Your task to perform on an android device: change alarm snooze length Image 0: 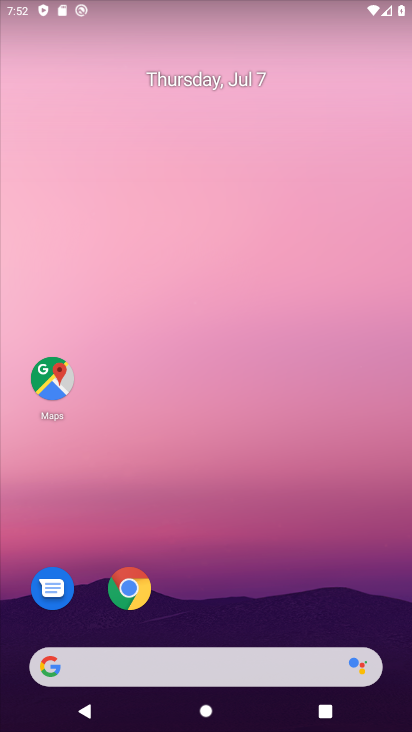
Step 0: drag from (37, 680) to (189, 121)
Your task to perform on an android device: change alarm snooze length Image 1: 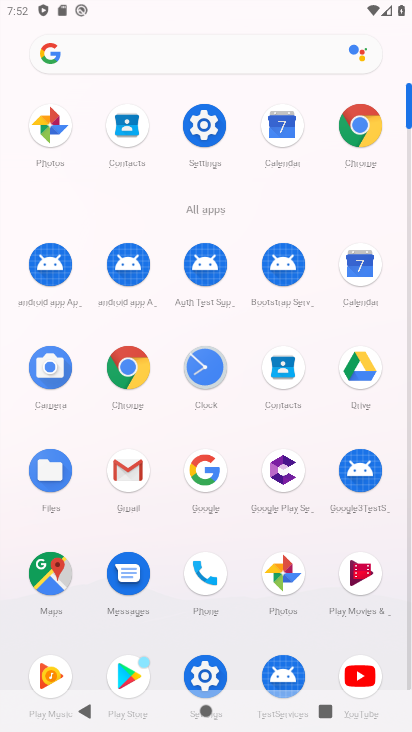
Step 1: click (203, 356)
Your task to perform on an android device: change alarm snooze length Image 2: 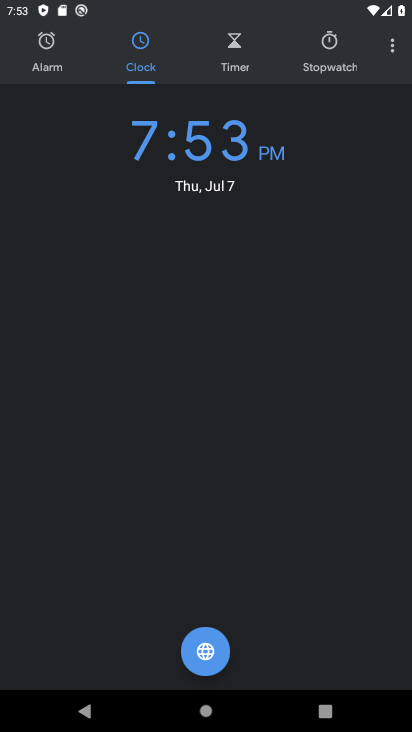
Step 2: click (44, 57)
Your task to perform on an android device: change alarm snooze length Image 3: 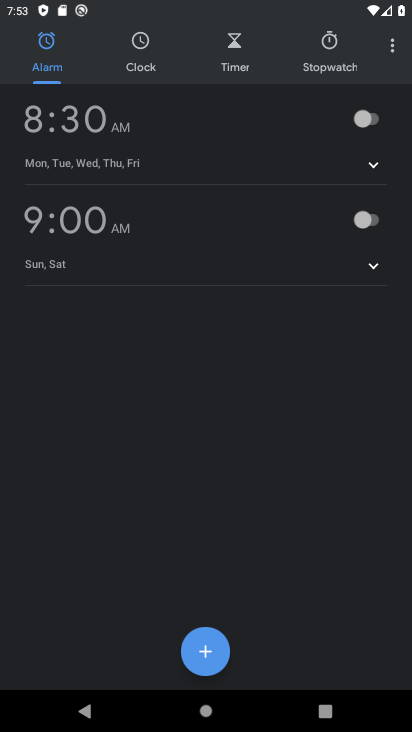
Step 3: click (391, 48)
Your task to perform on an android device: change alarm snooze length Image 4: 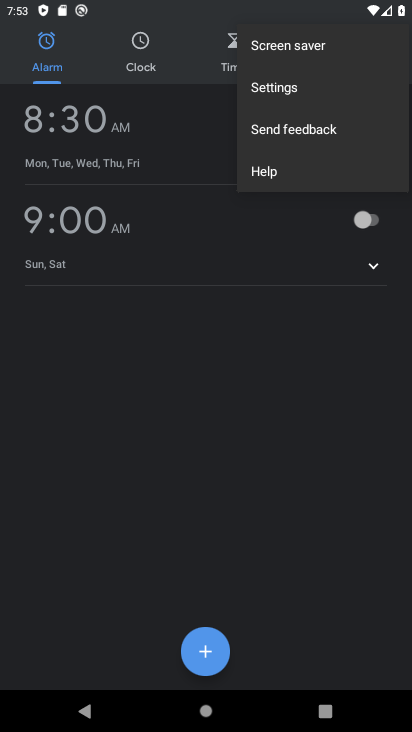
Step 4: click (291, 84)
Your task to perform on an android device: change alarm snooze length Image 5: 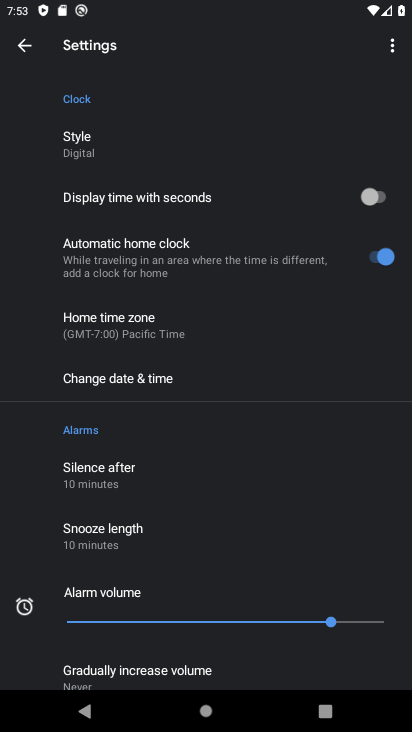
Step 5: drag from (200, 658) to (237, 222)
Your task to perform on an android device: change alarm snooze length Image 6: 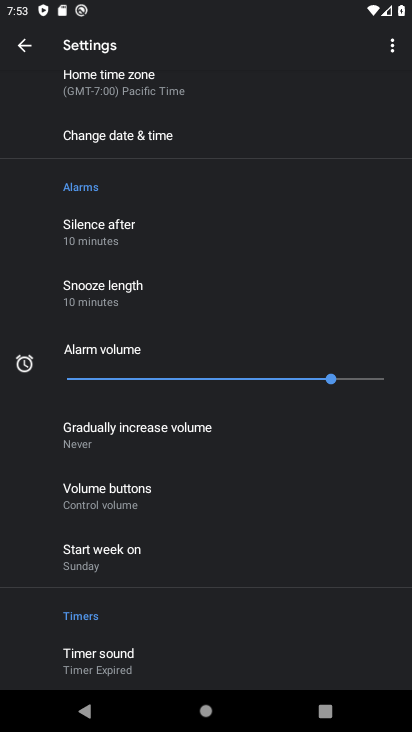
Step 6: click (98, 299)
Your task to perform on an android device: change alarm snooze length Image 7: 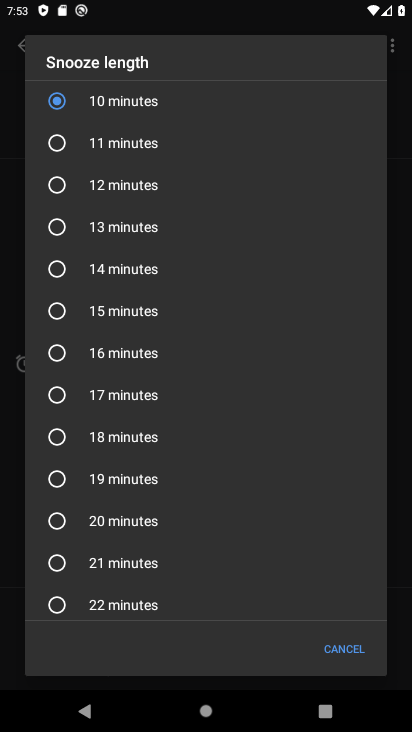
Step 7: click (58, 181)
Your task to perform on an android device: change alarm snooze length Image 8: 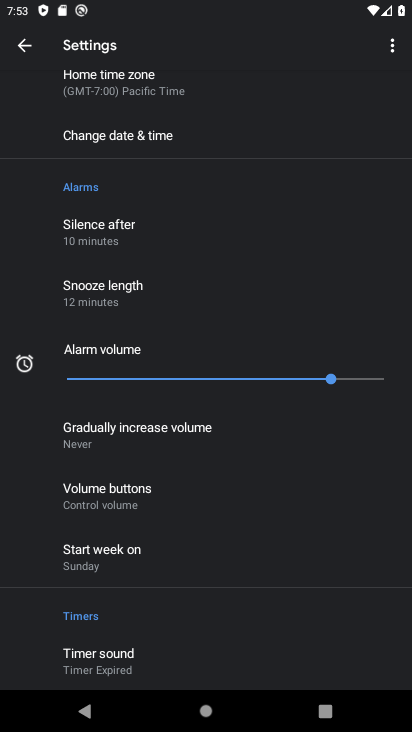
Step 8: task complete